Your task to perform on an android device: Go to eBay Image 0: 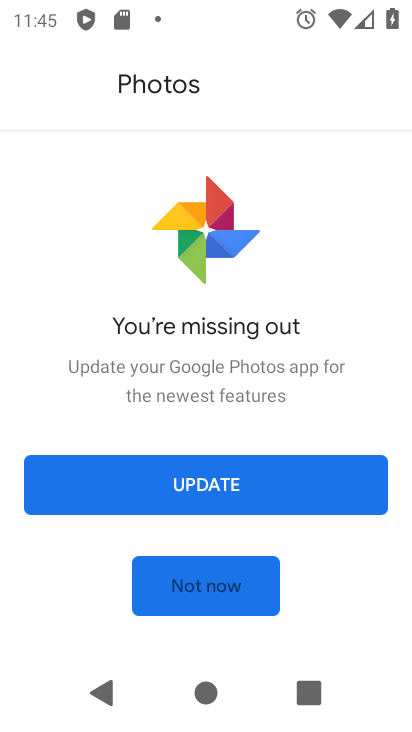
Step 0: press back button
Your task to perform on an android device: Go to eBay Image 1: 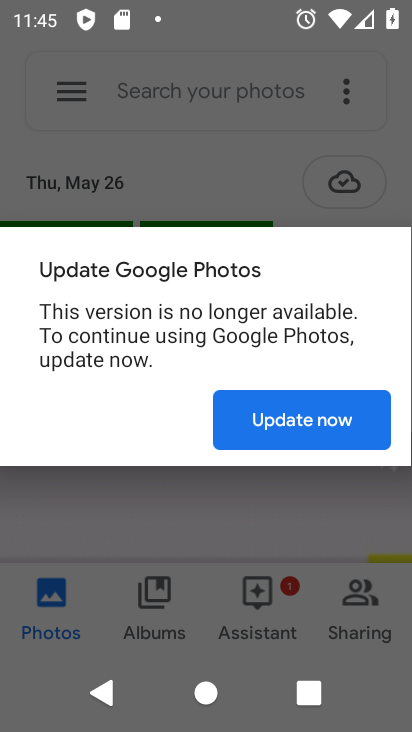
Step 1: press home button
Your task to perform on an android device: Go to eBay Image 2: 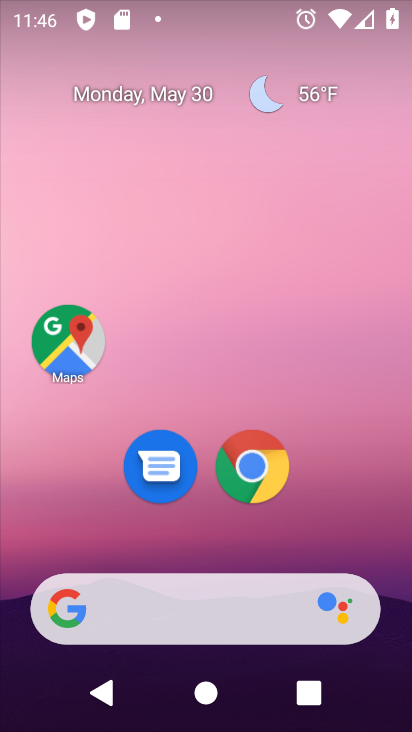
Step 2: click (261, 447)
Your task to perform on an android device: Go to eBay Image 3: 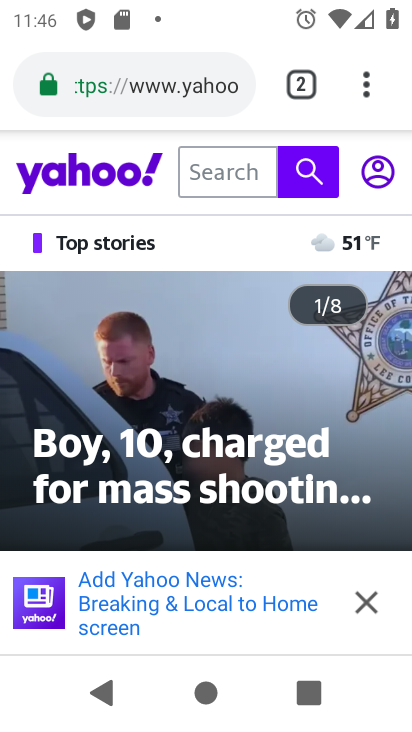
Step 3: click (166, 93)
Your task to perform on an android device: Go to eBay Image 4: 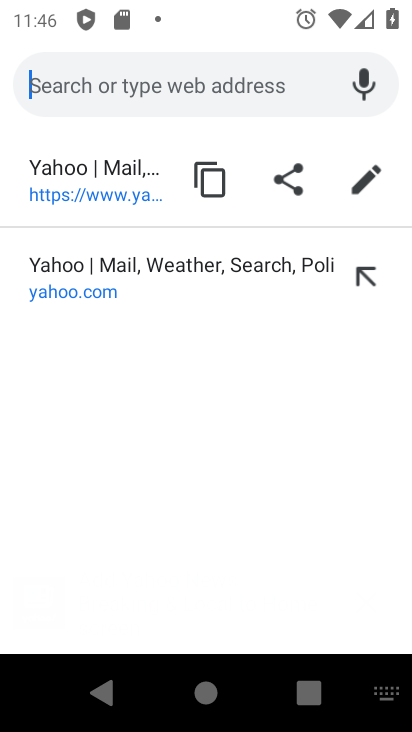
Step 4: type "ebay"
Your task to perform on an android device: Go to eBay Image 5: 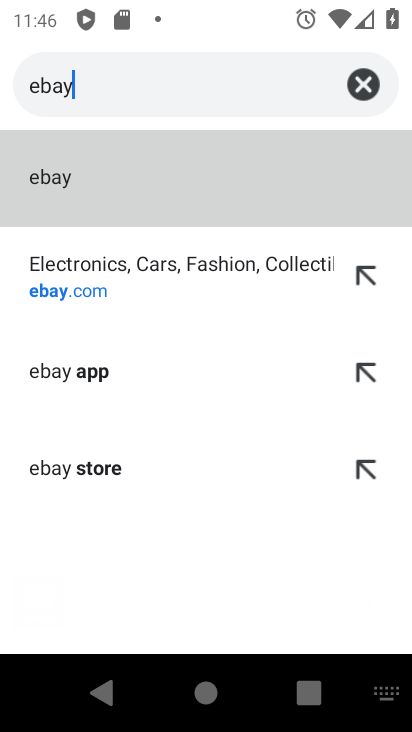
Step 5: click (151, 296)
Your task to perform on an android device: Go to eBay Image 6: 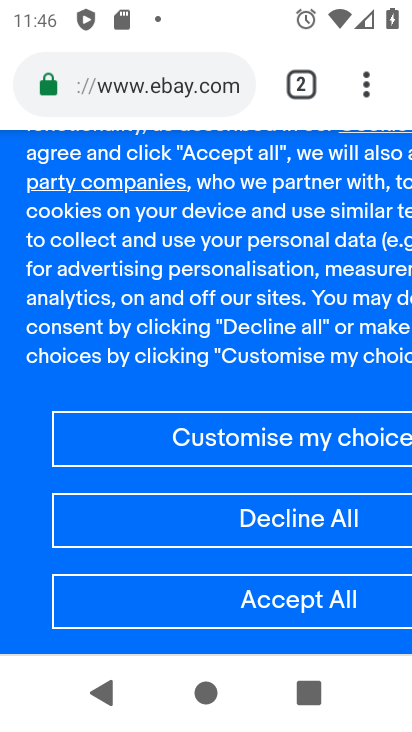
Step 6: task complete